Your task to perform on an android device: clear history in the chrome app Image 0: 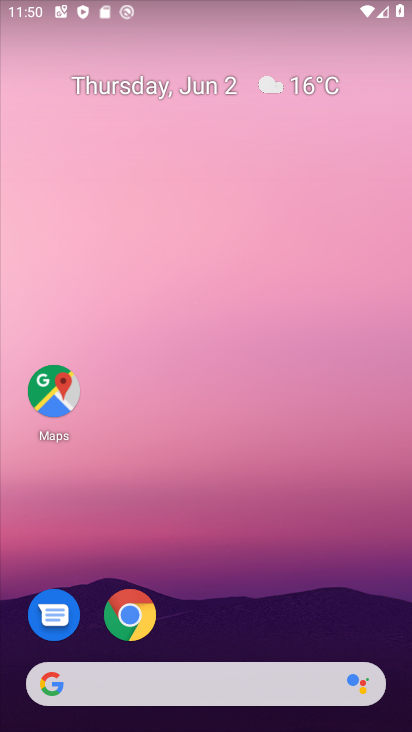
Step 0: drag from (260, 579) to (269, 331)
Your task to perform on an android device: clear history in the chrome app Image 1: 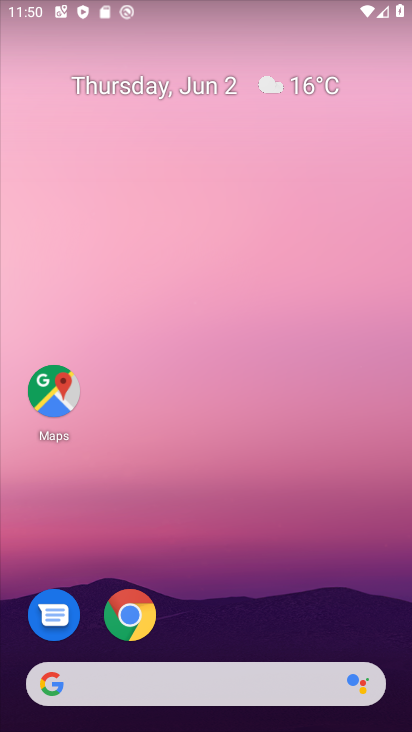
Step 1: click (122, 619)
Your task to perform on an android device: clear history in the chrome app Image 2: 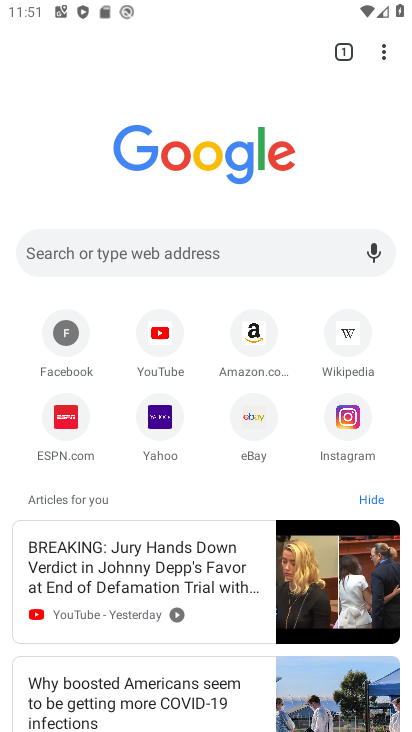
Step 2: click (378, 60)
Your task to perform on an android device: clear history in the chrome app Image 3: 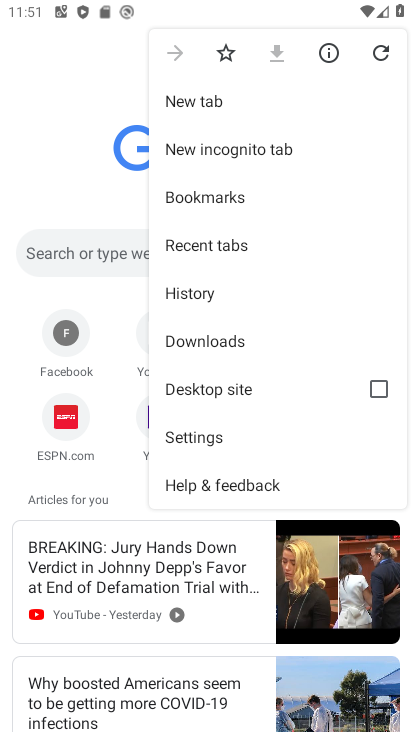
Step 3: click (226, 288)
Your task to perform on an android device: clear history in the chrome app Image 4: 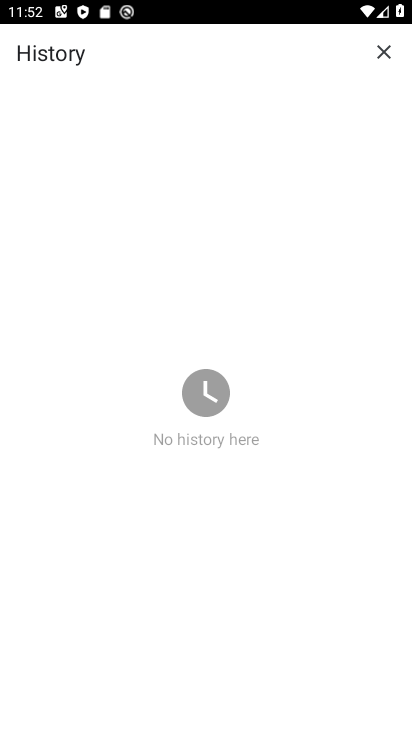
Step 4: task complete